Your task to perform on an android device: Go to privacy settings Image 0: 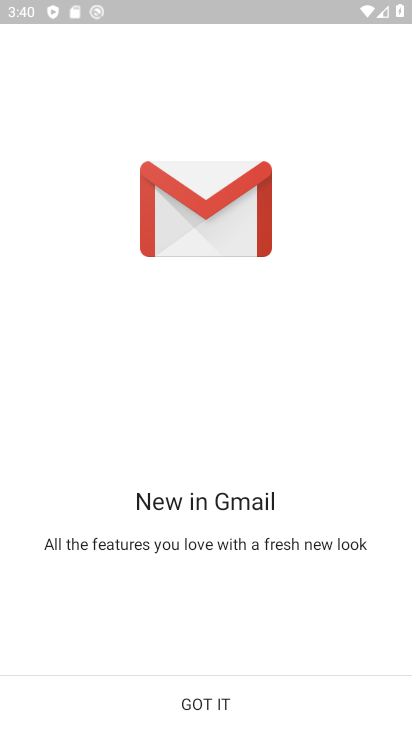
Step 0: press home button
Your task to perform on an android device: Go to privacy settings Image 1: 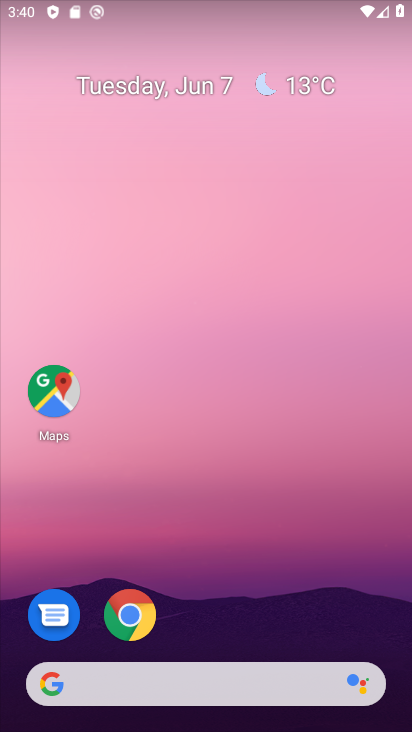
Step 1: drag from (187, 724) to (173, 44)
Your task to perform on an android device: Go to privacy settings Image 2: 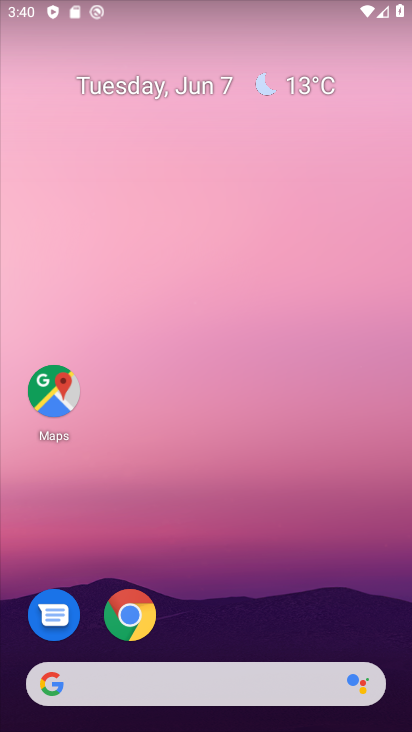
Step 2: drag from (226, 699) to (209, 187)
Your task to perform on an android device: Go to privacy settings Image 3: 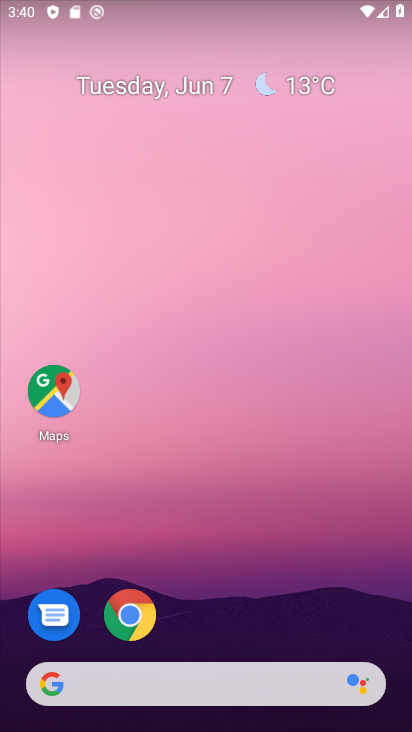
Step 3: drag from (219, 721) to (209, 111)
Your task to perform on an android device: Go to privacy settings Image 4: 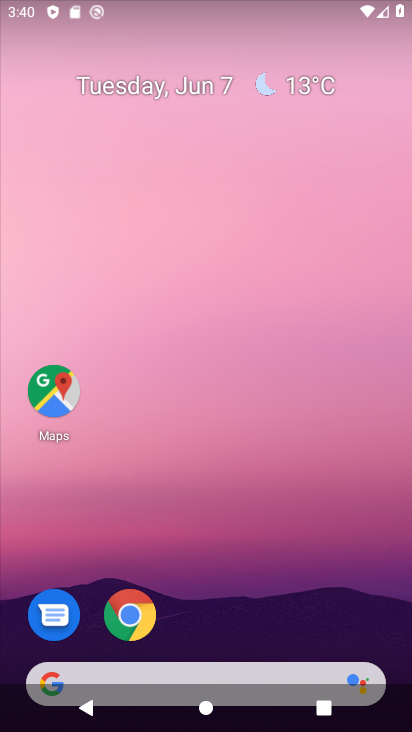
Step 4: drag from (224, 716) to (222, 87)
Your task to perform on an android device: Go to privacy settings Image 5: 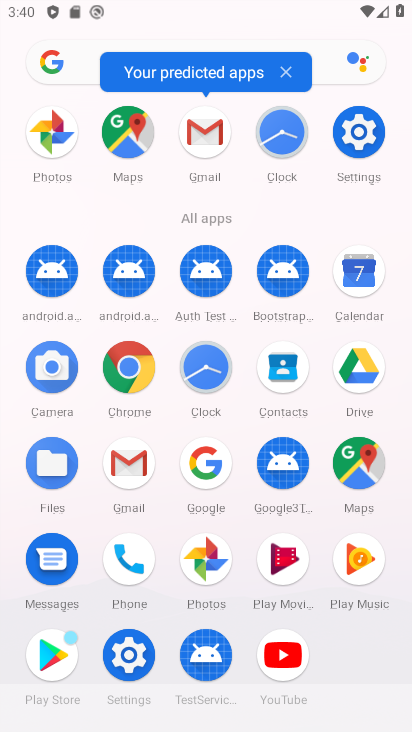
Step 5: click (362, 137)
Your task to perform on an android device: Go to privacy settings Image 6: 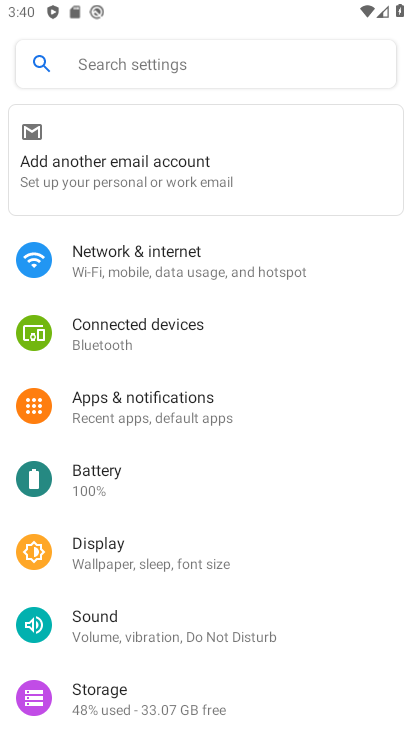
Step 6: drag from (208, 697) to (191, 241)
Your task to perform on an android device: Go to privacy settings Image 7: 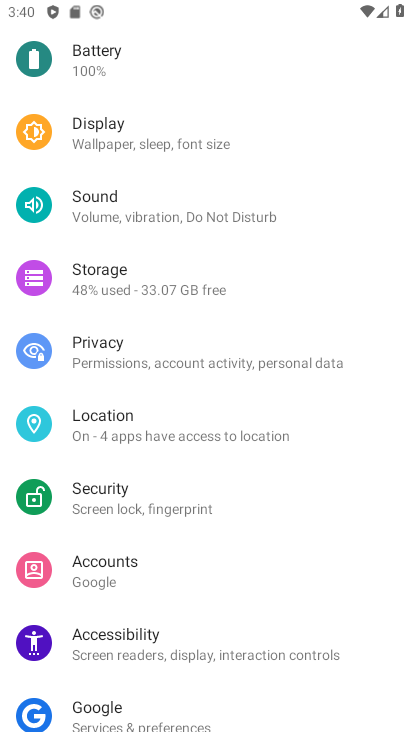
Step 7: drag from (127, 551) to (133, 353)
Your task to perform on an android device: Go to privacy settings Image 8: 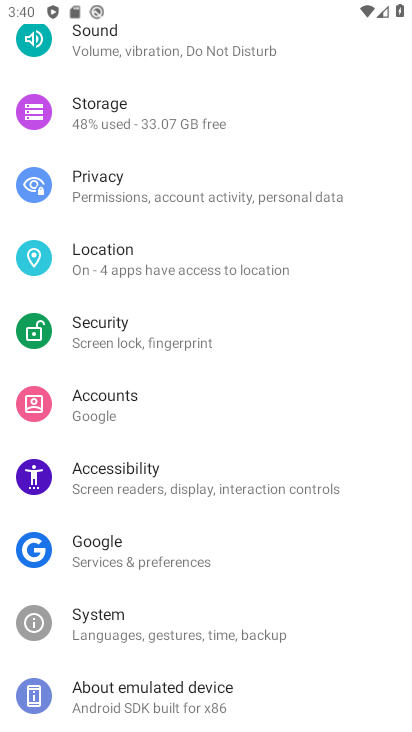
Step 8: click (100, 187)
Your task to perform on an android device: Go to privacy settings Image 9: 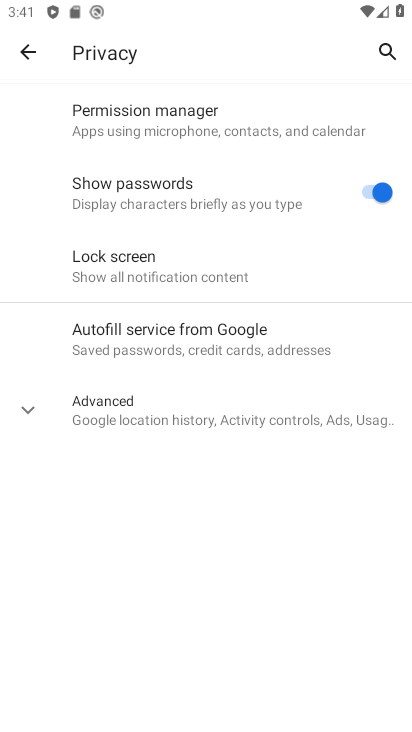
Step 9: task complete